Your task to perform on an android device: turn off location Image 0: 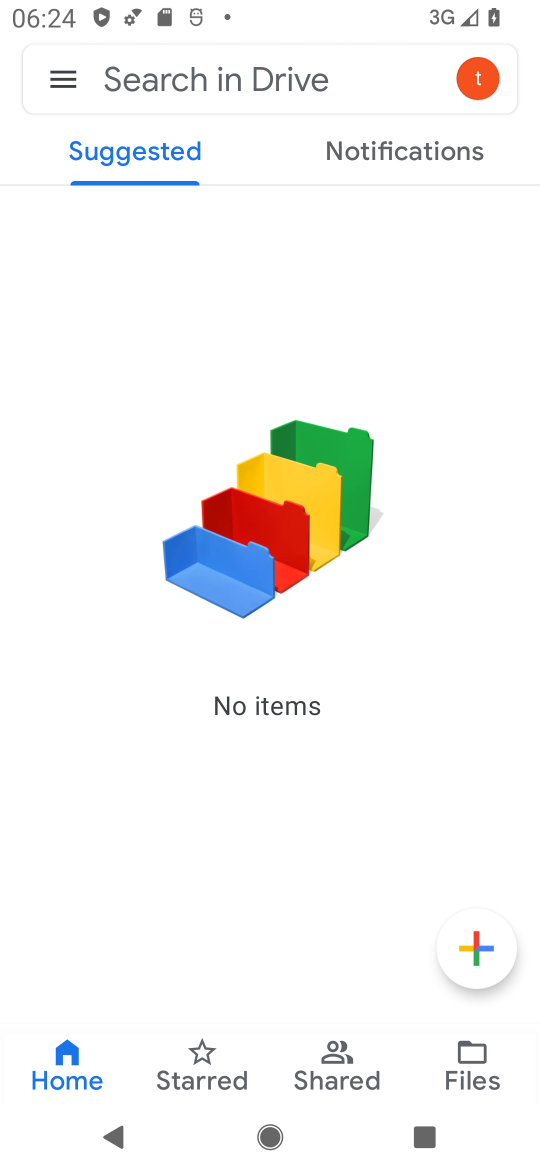
Step 0: press home button
Your task to perform on an android device: turn off location Image 1: 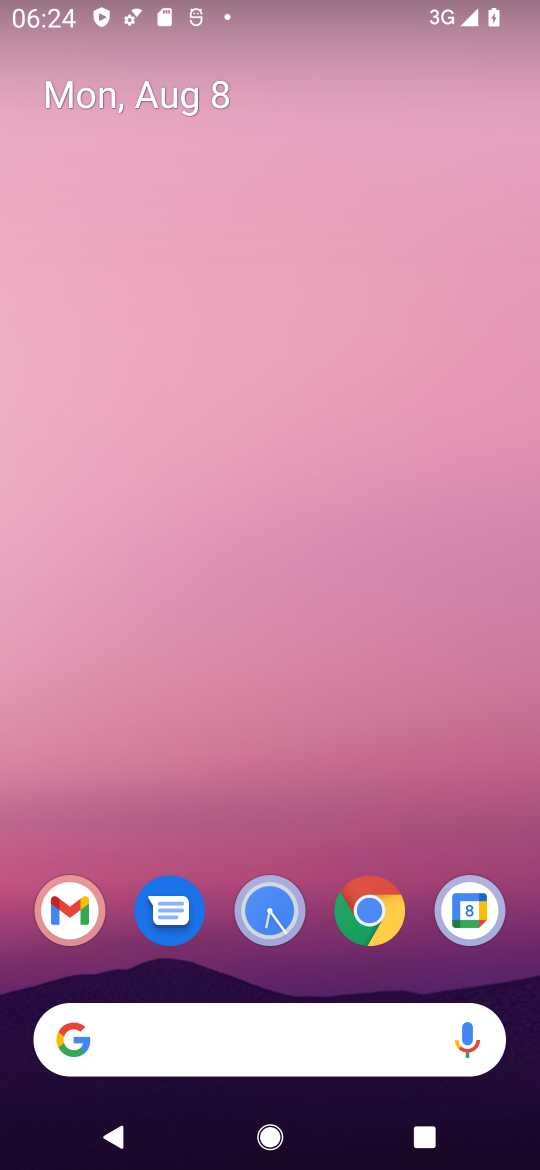
Step 1: drag from (228, 1053) to (353, 486)
Your task to perform on an android device: turn off location Image 2: 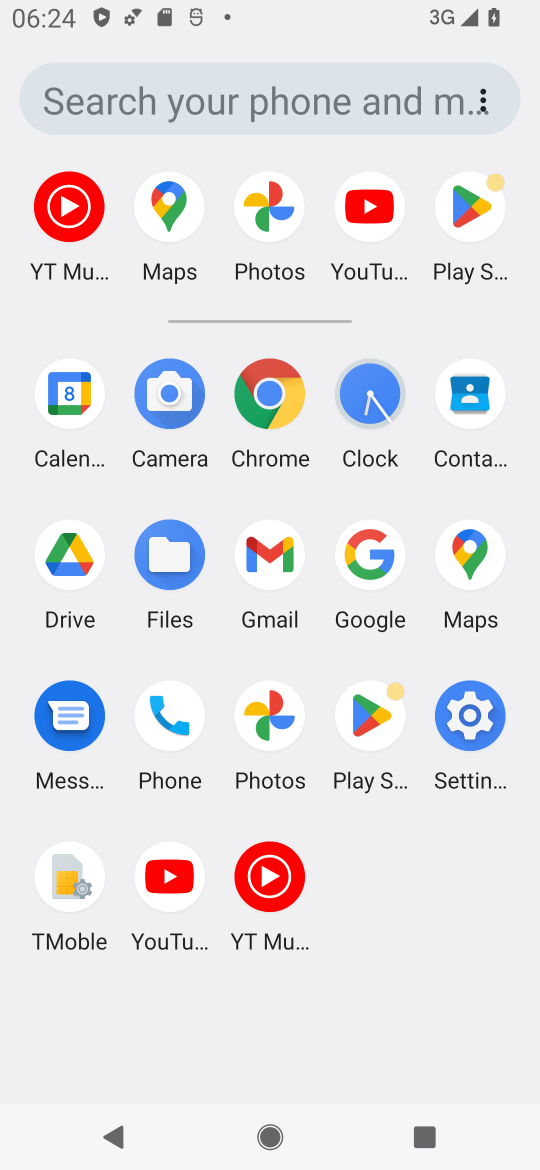
Step 2: click (469, 716)
Your task to perform on an android device: turn off location Image 3: 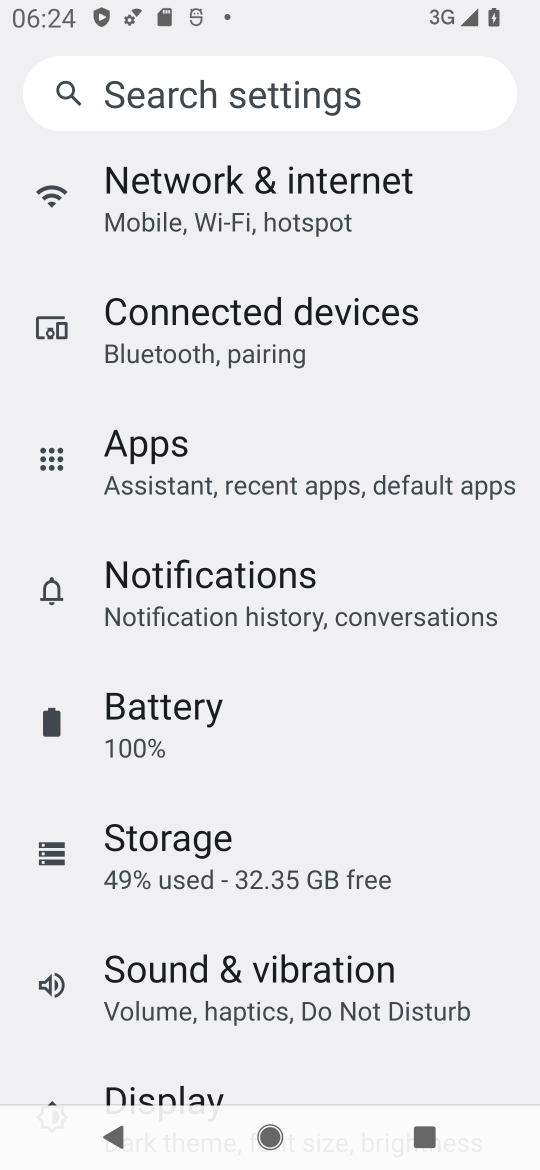
Step 3: drag from (263, 679) to (346, 518)
Your task to perform on an android device: turn off location Image 4: 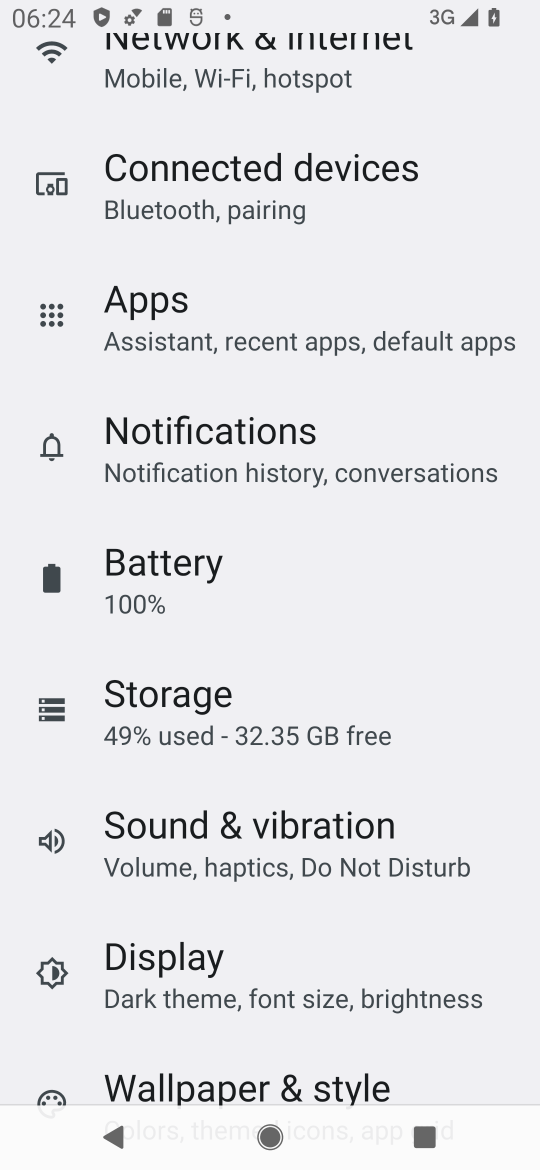
Step 4: drag from (214, 766) to (293, 631)
Your task to perform on an android device: turn off location Image 5: 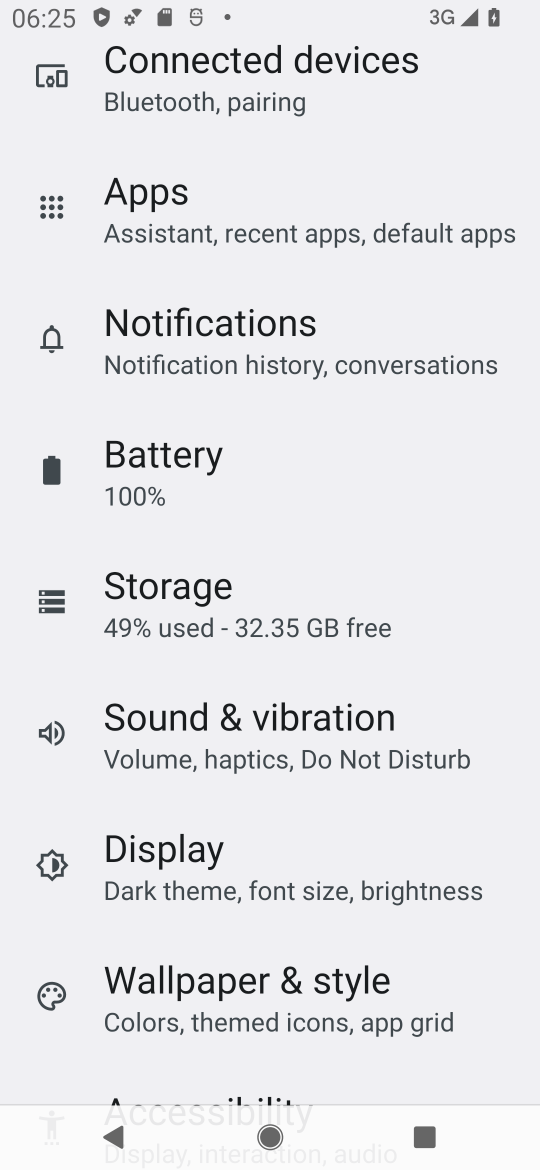
Step 5: drag from (227, 790) to (321, 636)
Your task to perform on an android device: turn off location Image 6: 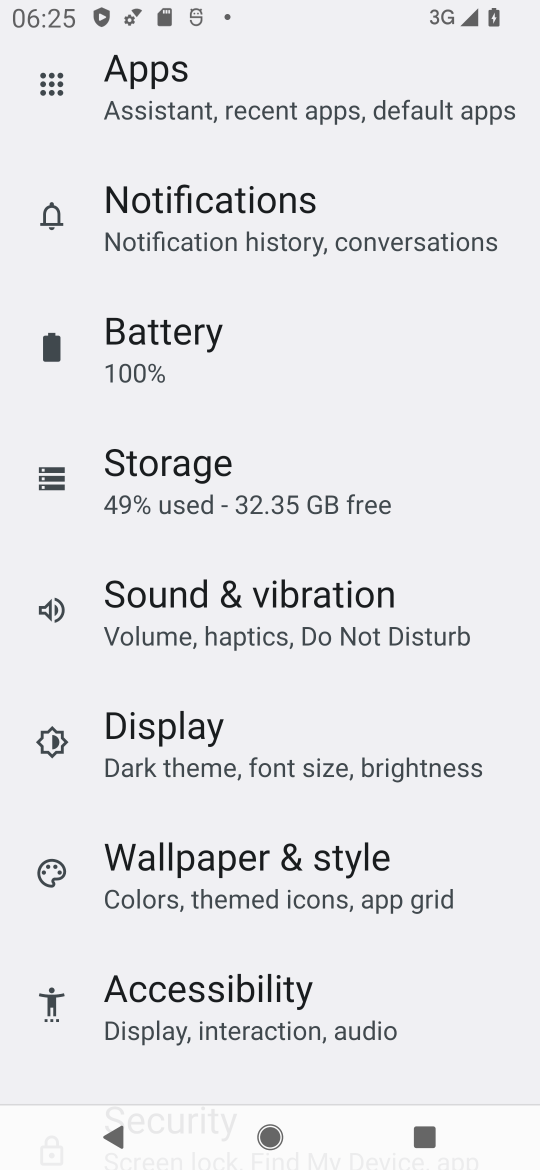
Step 6: drag from (205, 815) to (318, 647)
Your task to perform on an android device: turn off location Image 7: 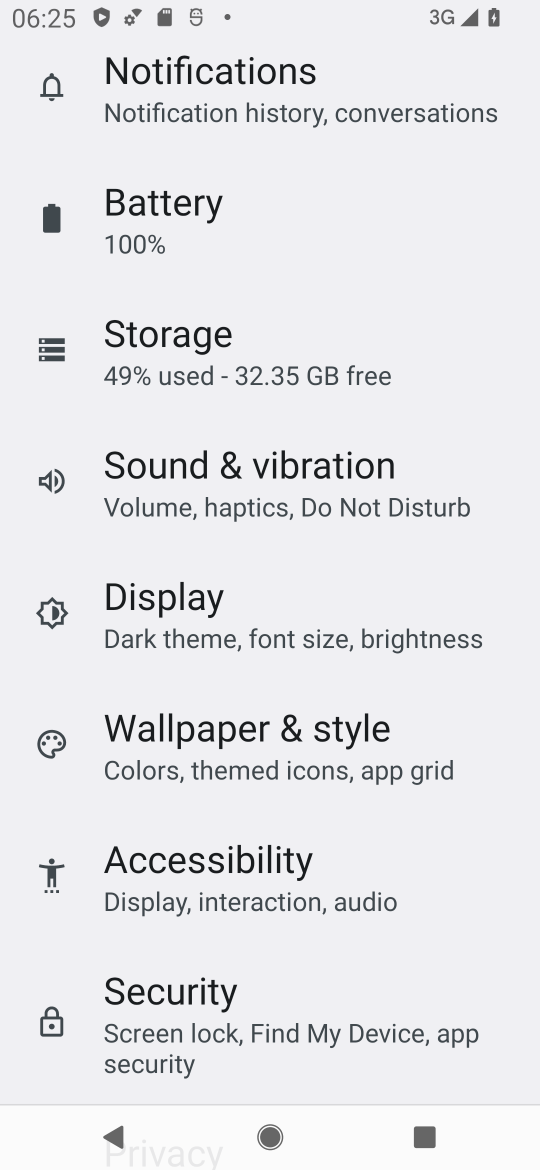
Step 7: drag from (287, 714) to (330, 643)
Your task to perform on an android device: turn off location Image 8: 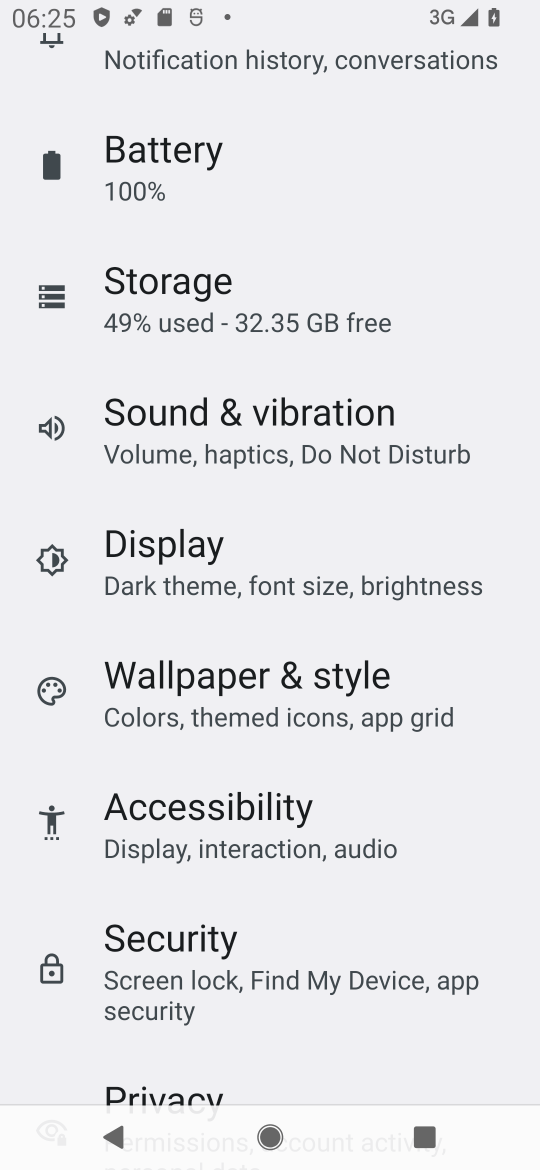
Step 8: drag from (182, 776) to (284, 595)
Your task to perform on an android device: turn off location Image 9: 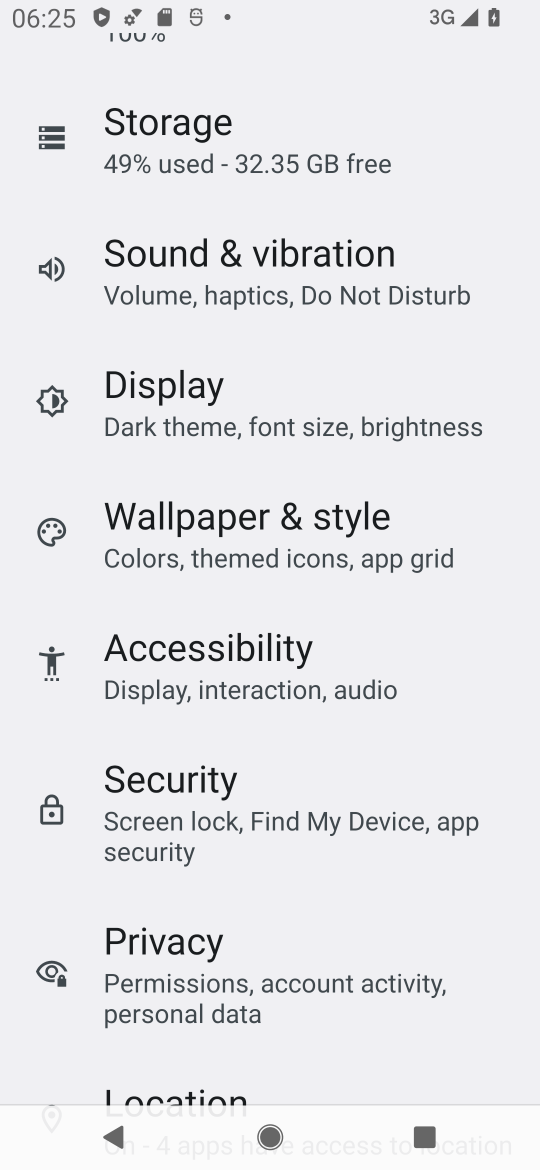
Step 9: drag from (154, 746) to (259, 574)
Your task to perform on an android device: turn off location Image 10: 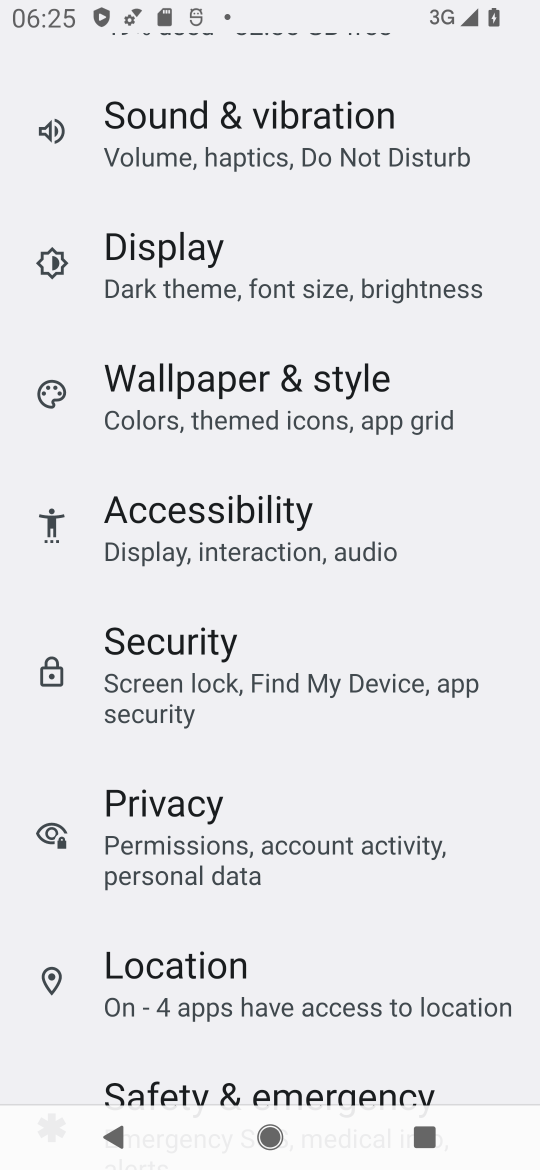
Step 10: drag from (188, 782) to (279, 612)
Your task to perform on an android device: turn off location Image 11: 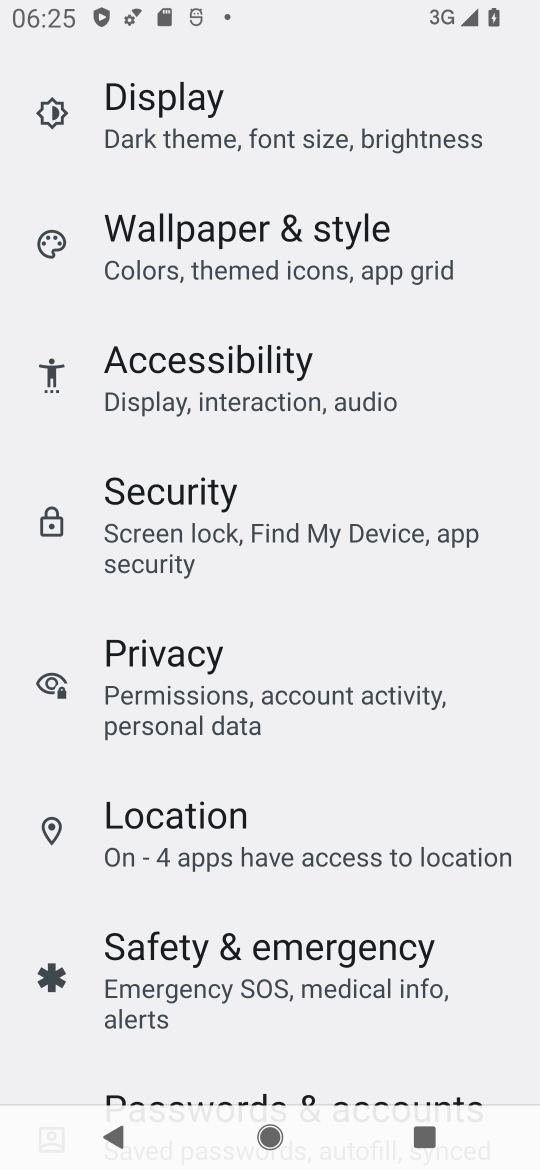
Step 11: click (212, 857)
Your task to perform on an android device: turn off location Image 12: 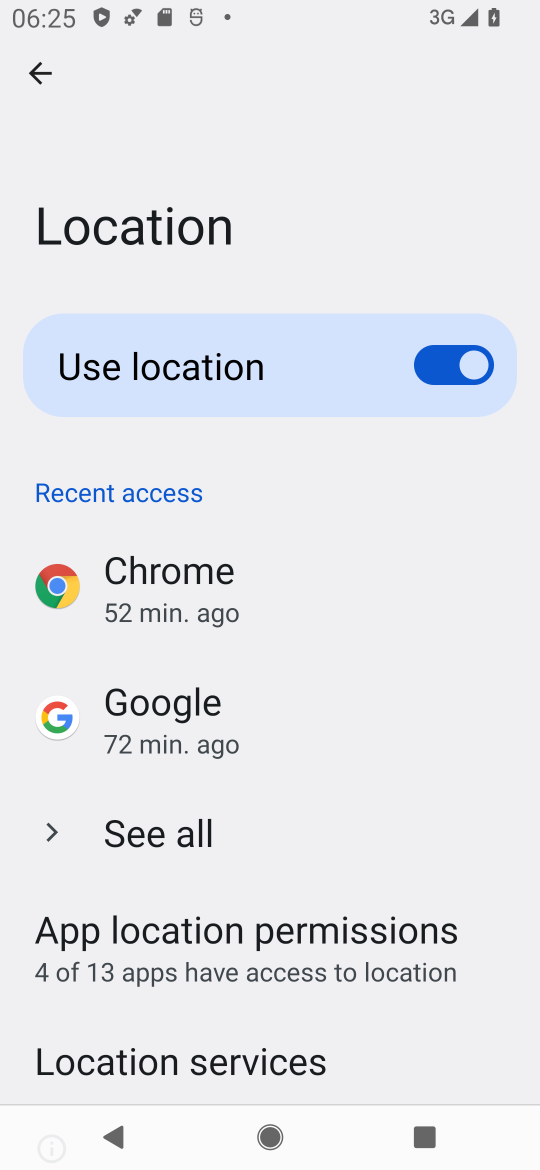
Step 12: click (429, 374)
Your task to perform on an android device: turn off location Image 13: 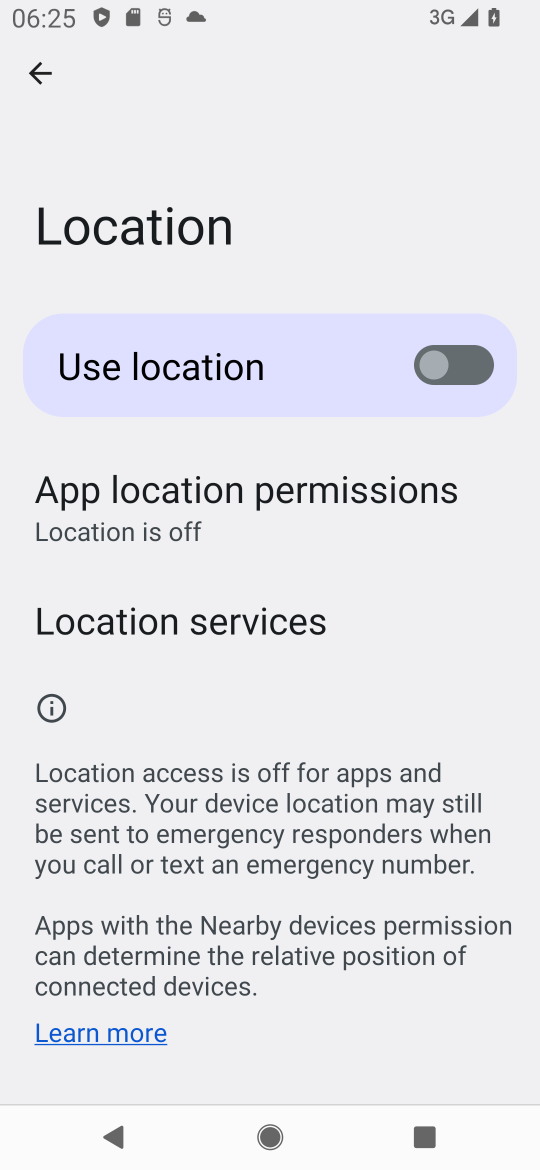
Step 13: task complete